Your task to perform on an android device: Go to battery settings Image 0: 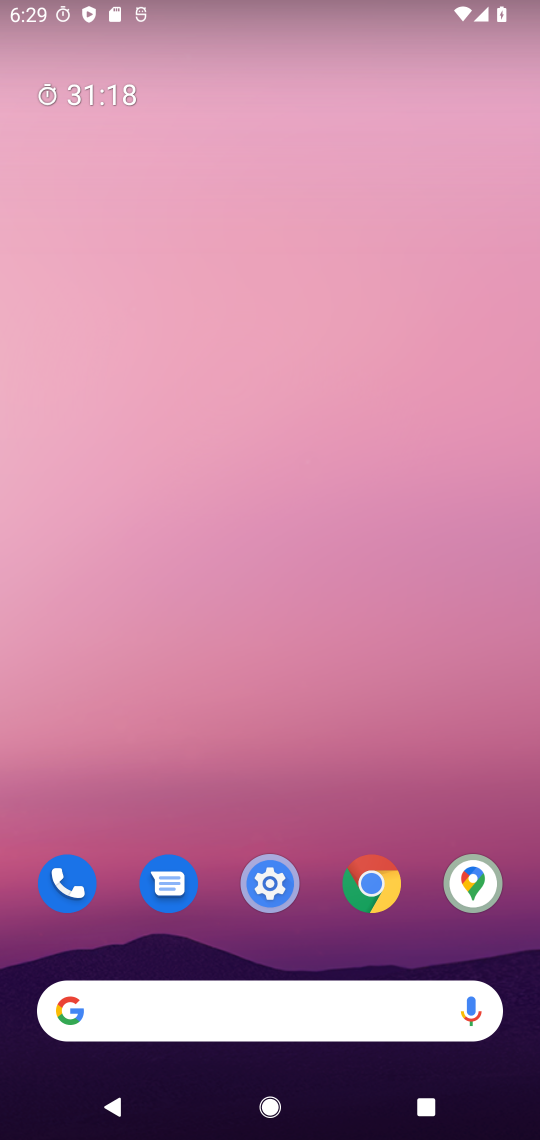
Step 0: click (269, 888)
Your task to perform on an android device: Go to battery settings Image 1: 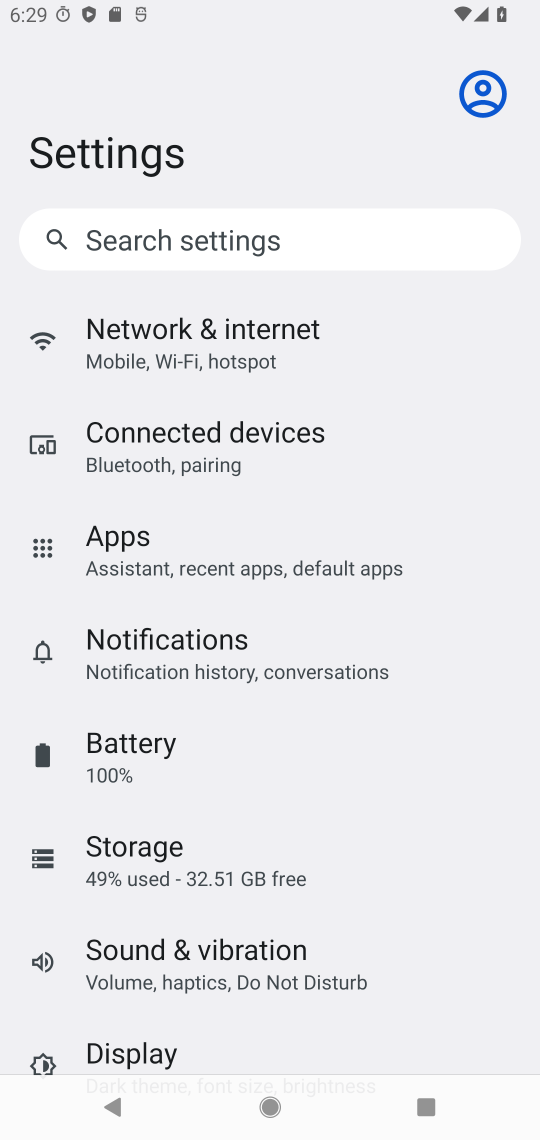
Step 1: click (182, 773)
Your task to perform on an android device: Go to battery settings Image 2: 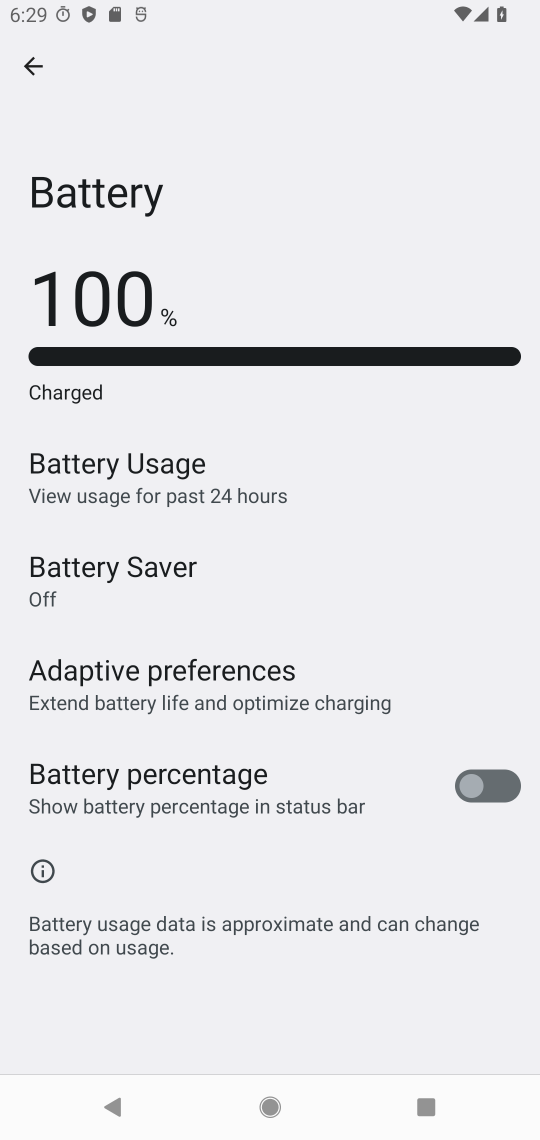
Step 2: task complete